Your task to perform on an android device: uninstall "PlayWell" Image 0: 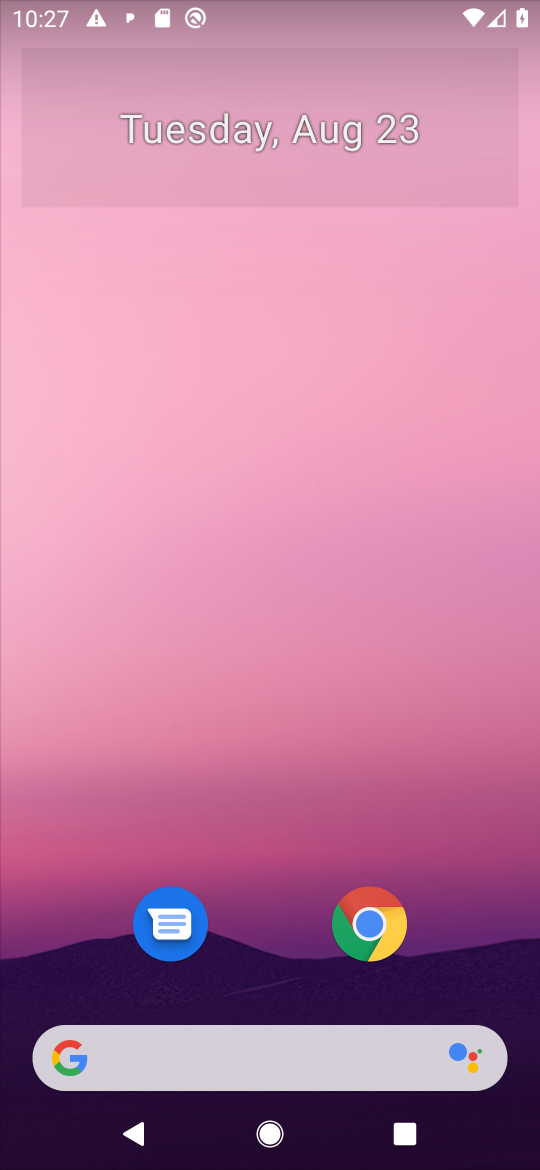
Step 0: press home button
Your task to perform on an android device: uninstall "PlayWell" Image 1: 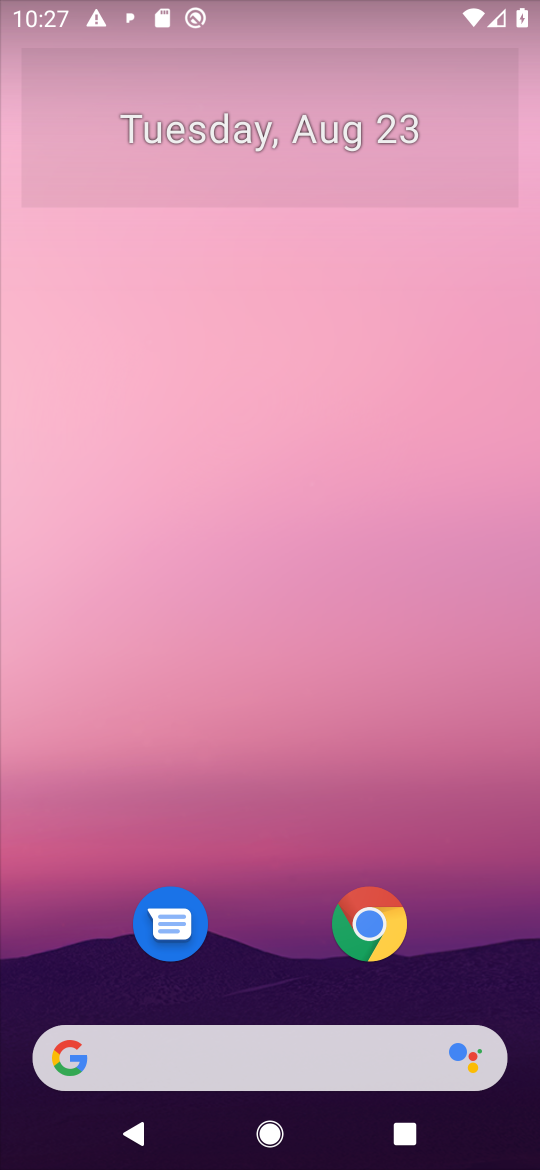
Step 1: drag from (450, 821) to (431, 68)
Your task to perform on an android device: uninstall "PlayWell" Image 2: 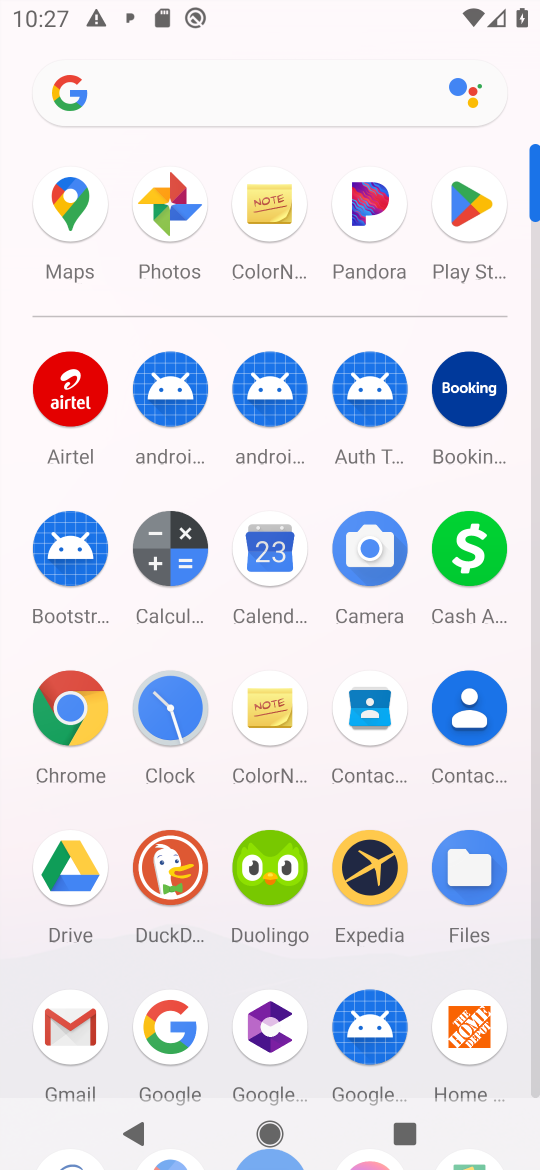
Step 2: click (468, 200)
Your task to perform on an android device: uninstall "PlayWell" Image 3: 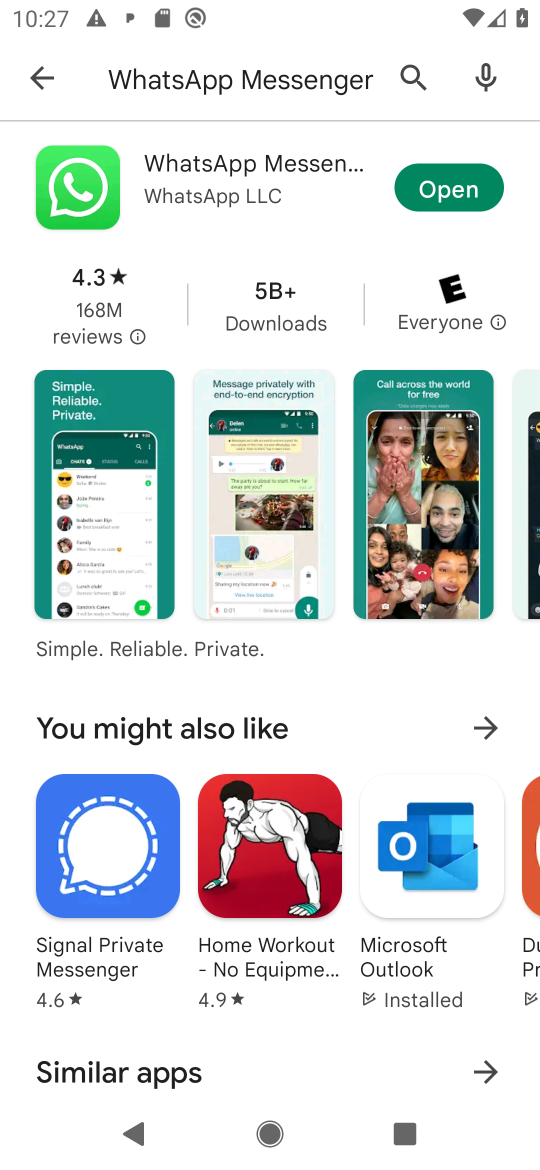
Step 3: press back button
Your task to perform on an android device: uninstall "PlayWell" Image 4: 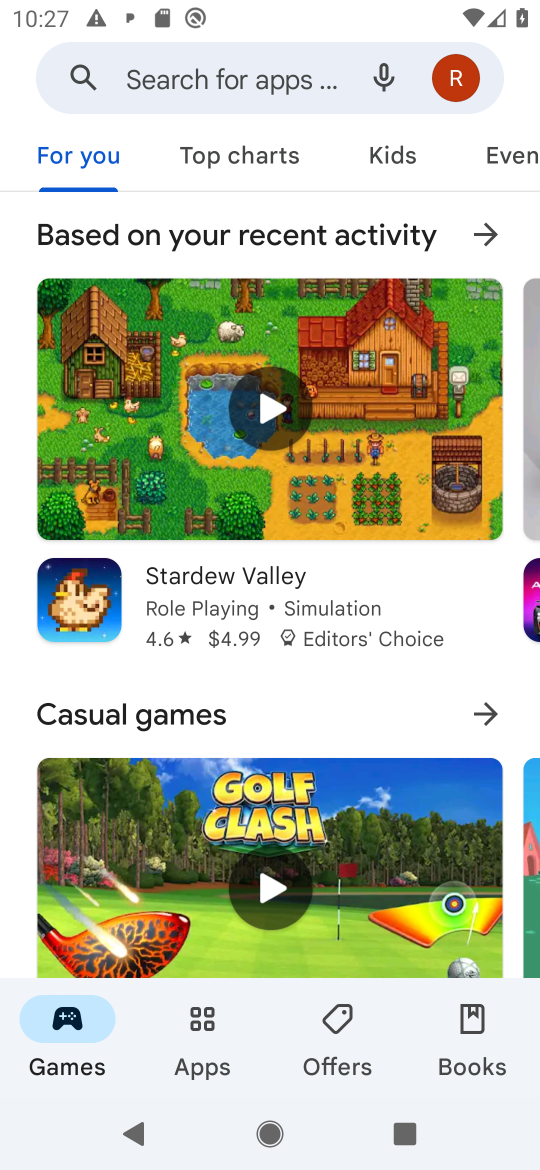
Step 4: click (257, 78)
Your task to perform on an android device: uninstall "PlayWell" Image 5: 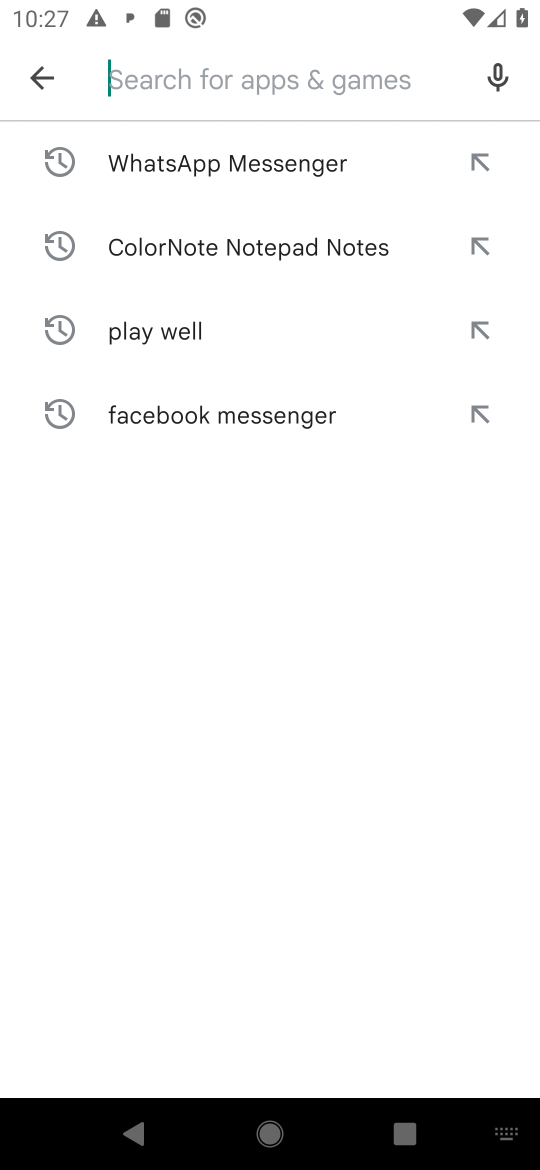
Step 5: press enter
Your task to perform on an android device: uninstall "PlayWell" Image 6: 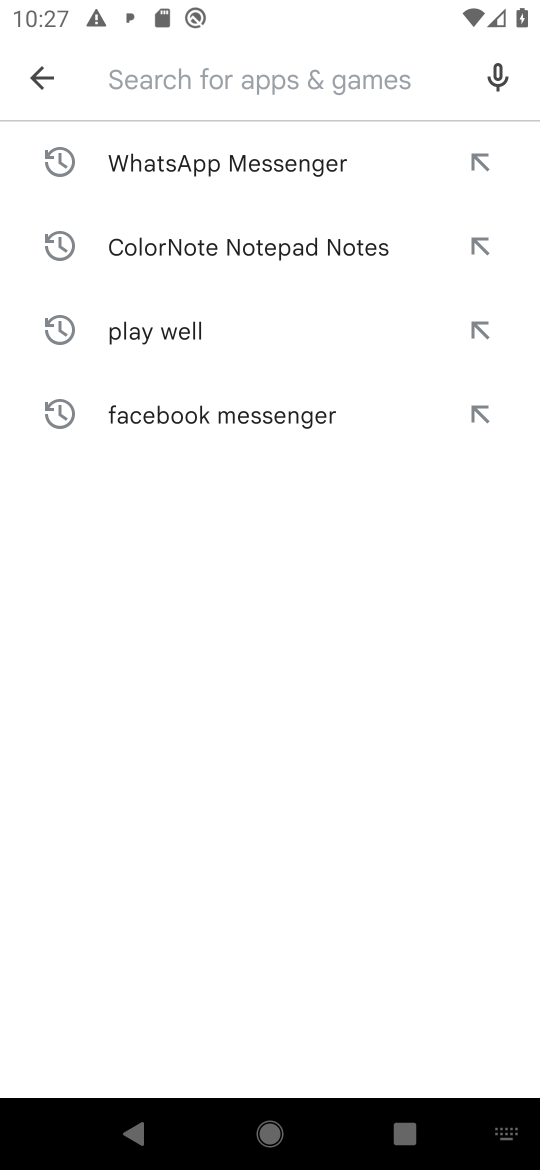
Step 6: type "play well"
Your task to perform on an android device: uninstall "PlayWell" Image 7: 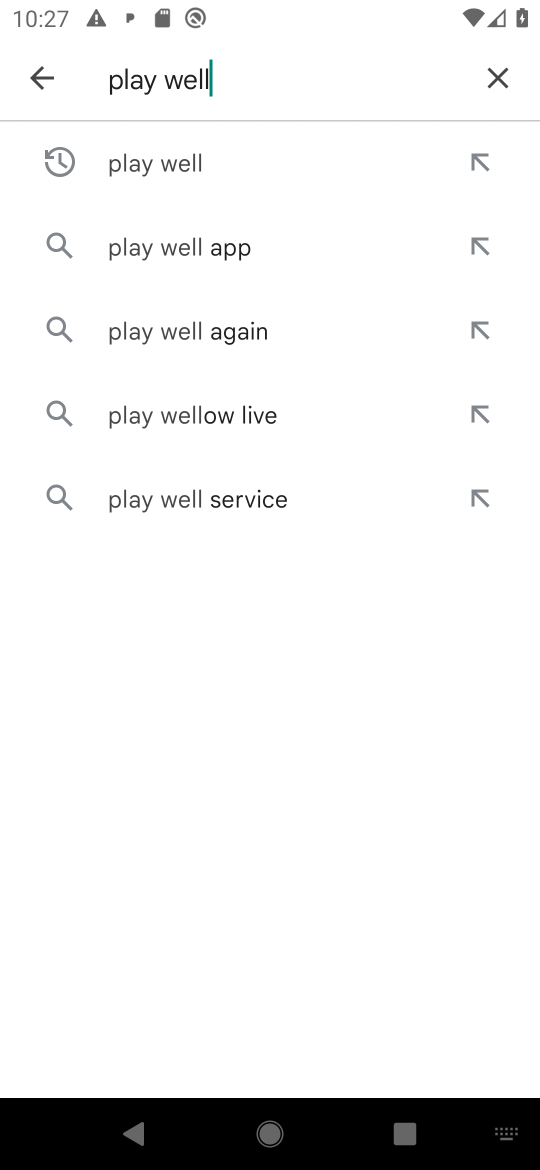
Step 7: click (208, 152)
Your task to perform on an android device: uninstall "PlayWell" Image 8: 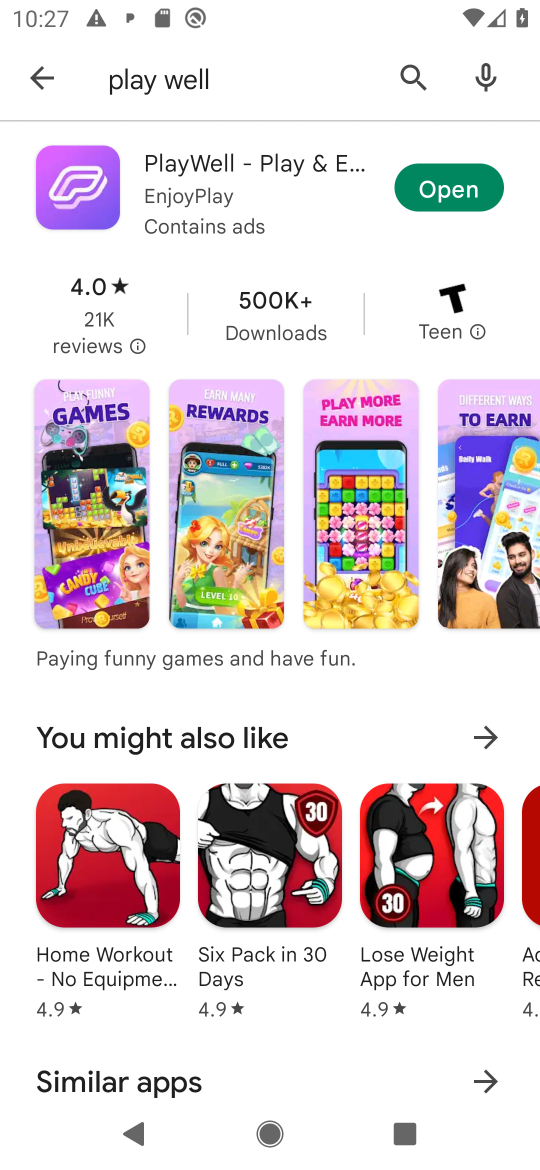
Step 8: task complete